Your task to perform on an android device: Open Youtube and go to "Your channel" Image 0: 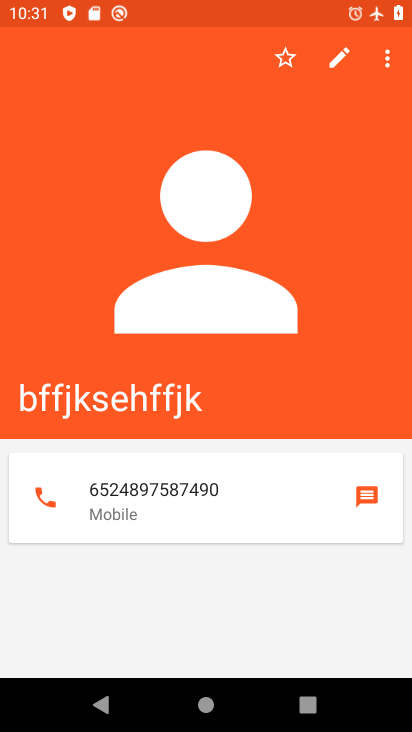
Step 0: press back button
Your task to perform on an android device: Open Youtube and go to "Your channel" Image 1: 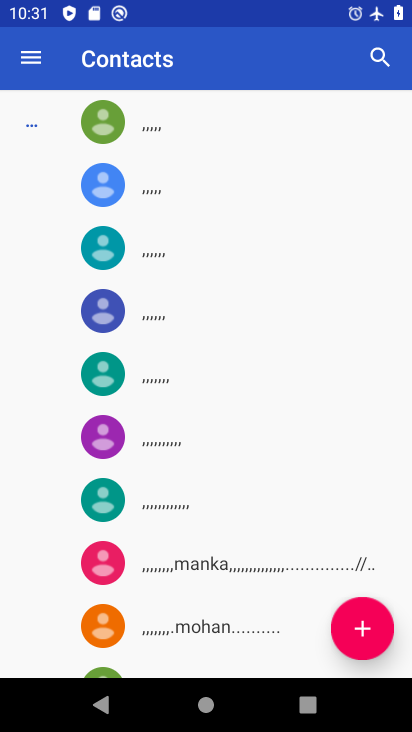
Step 1: press home button
Your task to perform on an android device: Open Youtube and go to "Your channel" Image 2: 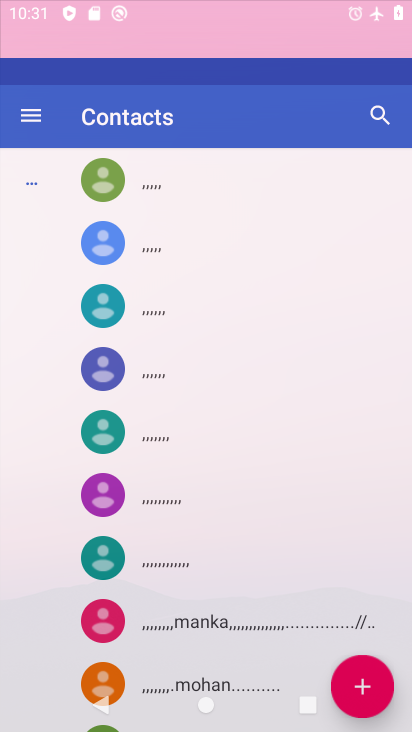
Step 2: press home button
Your task to perform on an android device: Open Youtube and go to "Your channel" Image 3: 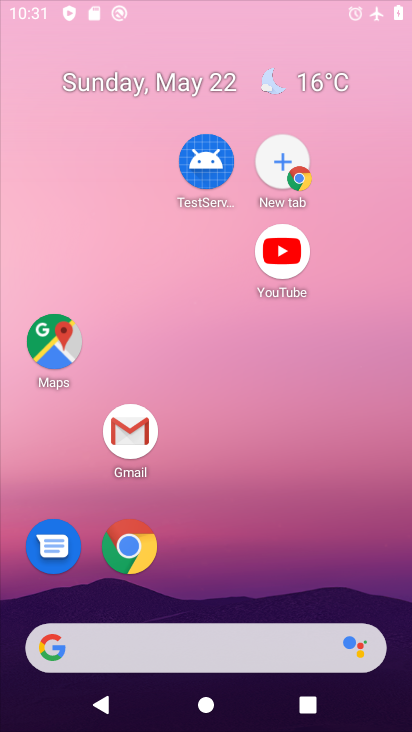
Step 3: press home button
Your task to perform on an android device: Open Youtube and go to "Your channel" Image 4: 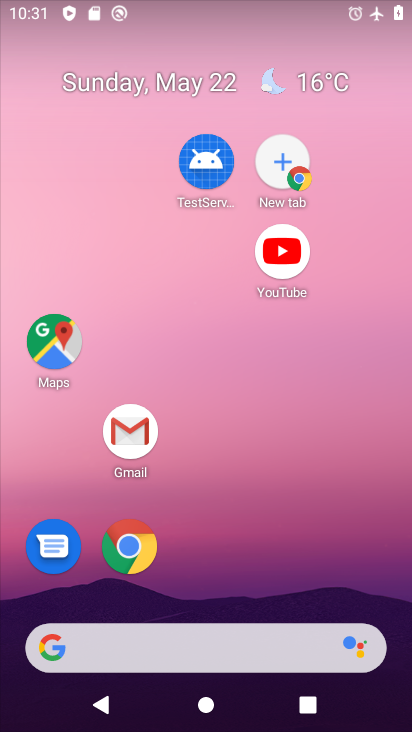
Step 4: drag from (369, 698) to (246, 15)
Your task to perform on an android device: Open Youtube and go to "Your channel" Image 5: 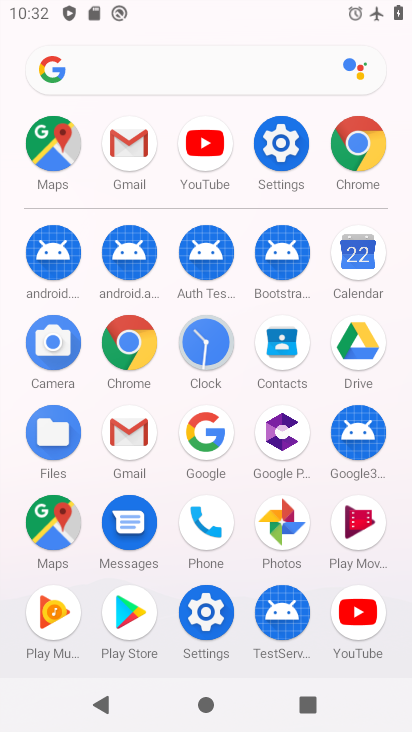
Step 5: click (358, 615)
Your task to perform on an android device: Open Youtube and go to "Your channel" Image 6: 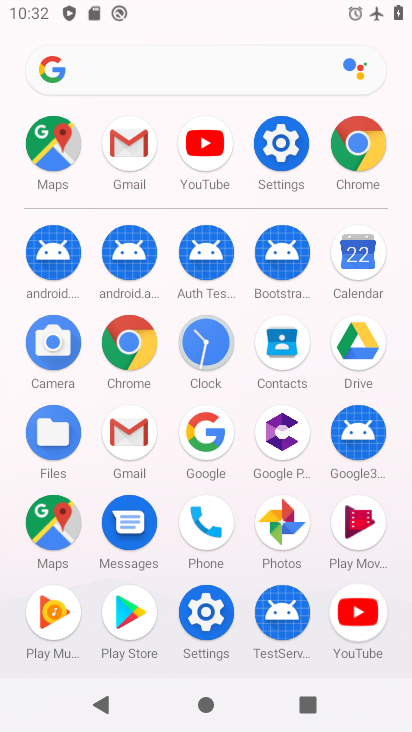
Step 6: click (357, 613)
Your task to perform on an android device: Open Youtube and go to "Your channel" Image 7: 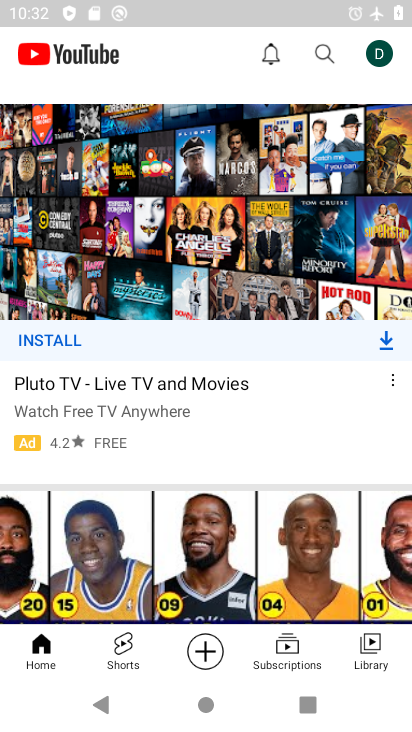
Step 7: press back button
Your task to perform on an android device: Open Youtube and go to "Your channel" Image 8: 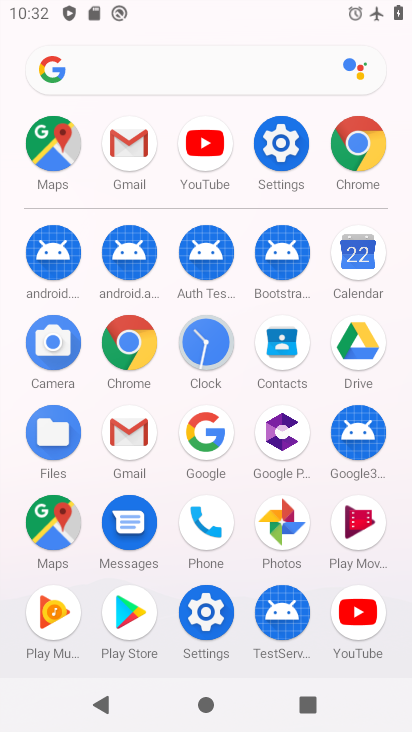
Step 8: click (365, 594)
Your task to perform on an android device: Open Youtube and go to "Your channel" Image 9: 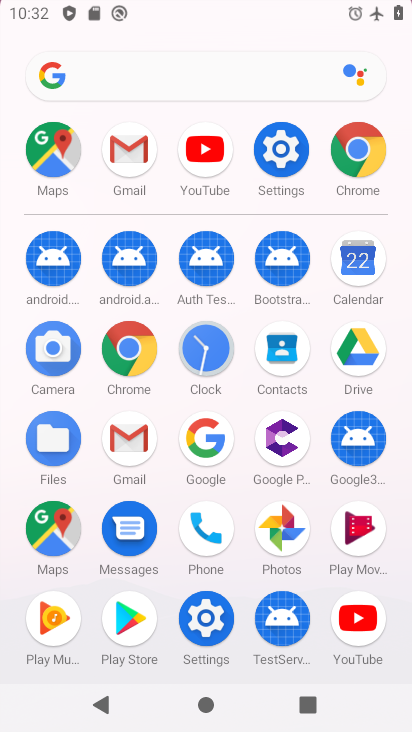
Step 9: click (370, 605)
Your task to perform on an android device: Open Youtube and go to "Your channel" Image 10: 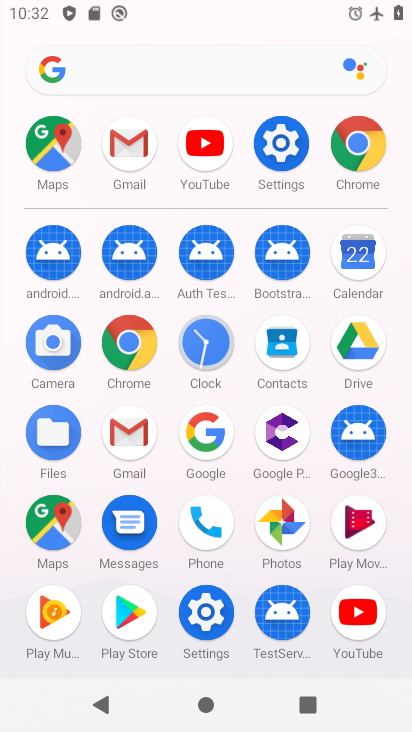
Step 10: click (366, 605)
Your task to perform on an android device: Open Youtube and go to "Your channel" Image 11: 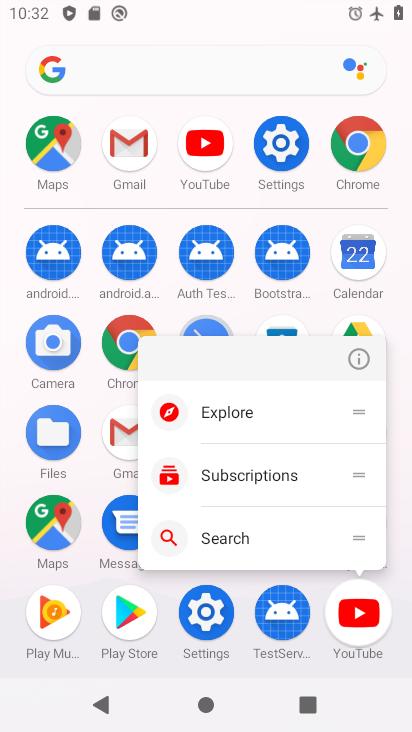
Step 11: click (365, 602)
Your task to perform on an android device: Open Youtube and go to "Your channel" Image 12: 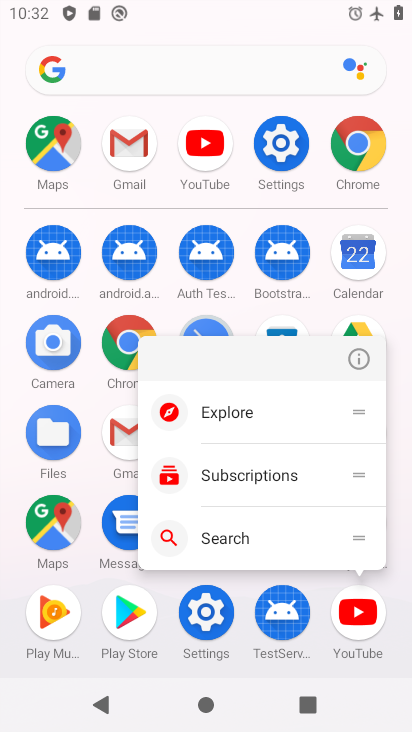
Step 12: click (363, 606)
Your task to perform on an android device: Open Youtube and go to "Your channel" Image 13: 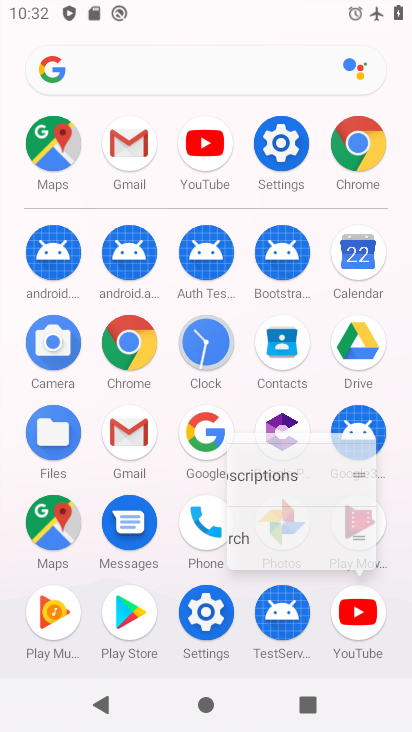
Step 13: click (362, 607)
Your task to perform on an android device: Open Youtube and go to "Your channel" Image 14: 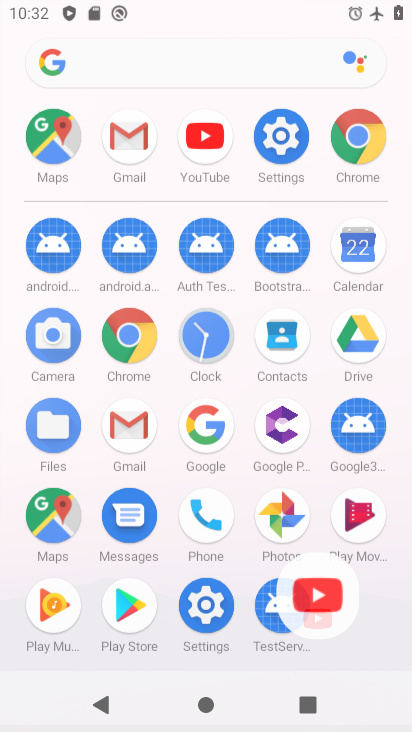
Step 14: click (362, 607)
Your task to perform on an android device: Open Youtube and go to "Your channel" Image 15: 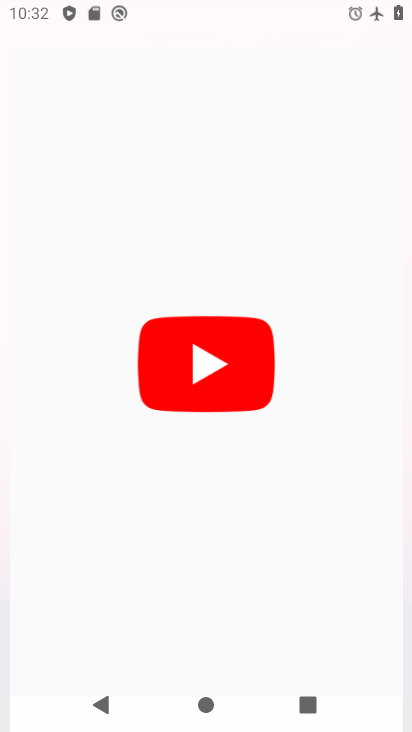
Step 15: click (362, 608)
Your task to perform on an android device: Open Youtube and go to "Your channel" Image 16: 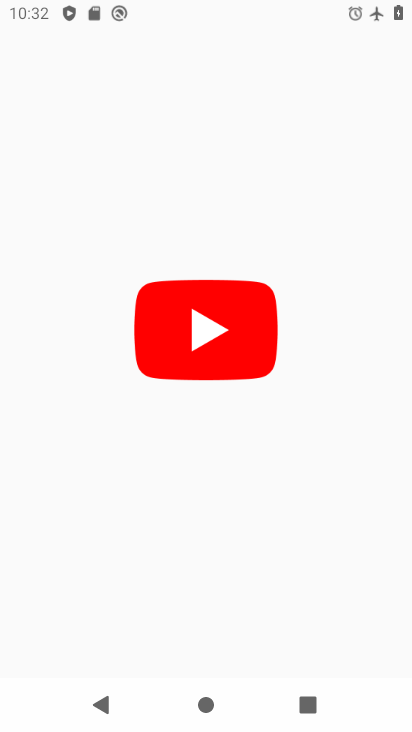
Step 16: click (362, 609)
Your task to perform on an android device: Open Youtube and go to "Your channel" Image 17: 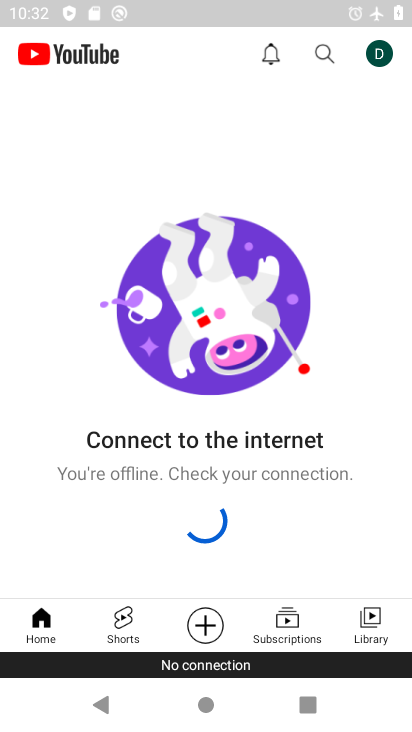
Step 17: task complete